Your task to perform on an android device: open a bookmark in the chrome app Image 0: 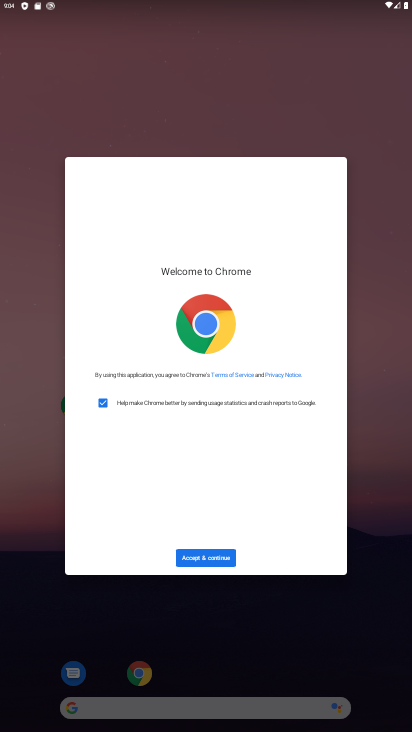
Step 0: press home button
Your task to perform on an android device: open a bookmark in the chrome app Image 1: 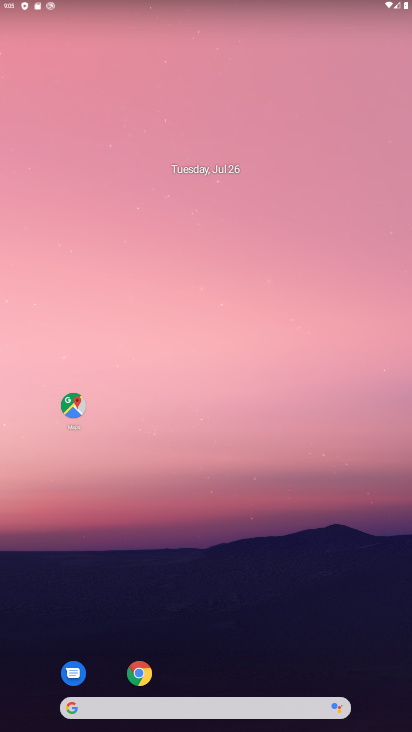
Step 1: click (140, 672)
Your task to perform on an android device: open a bookmark in the chrome app Image 2: 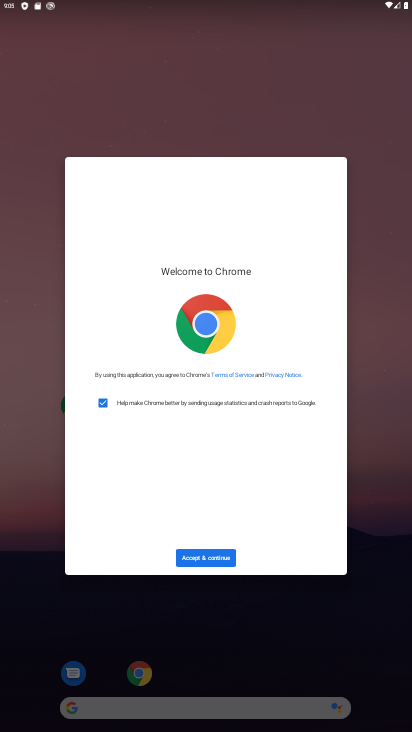
Step 2: click (212, 558)
Your task to perform on an android device: open a bookmark in the chrome app Image 3: 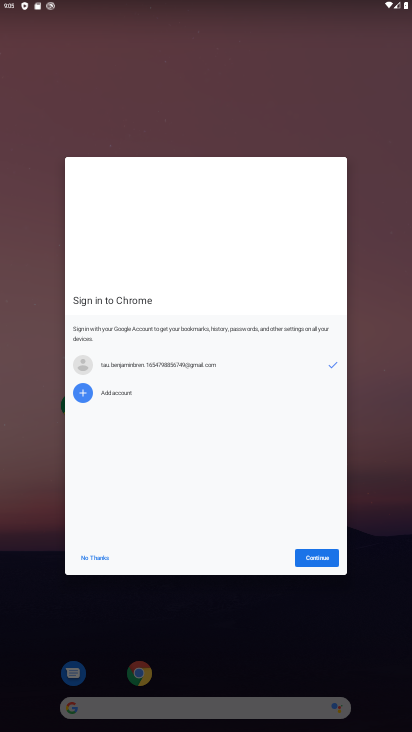
Step 3: click (318, 557)
Your task to perform on an android device: open a bookmark in the chrome app Image 4: 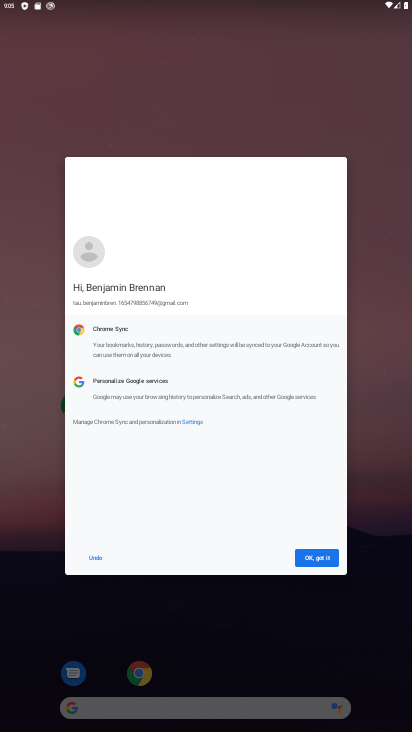
Step 4: click (318, 557)
Your task to perform on an android device: open a bookmark in the chrome app Image 5: 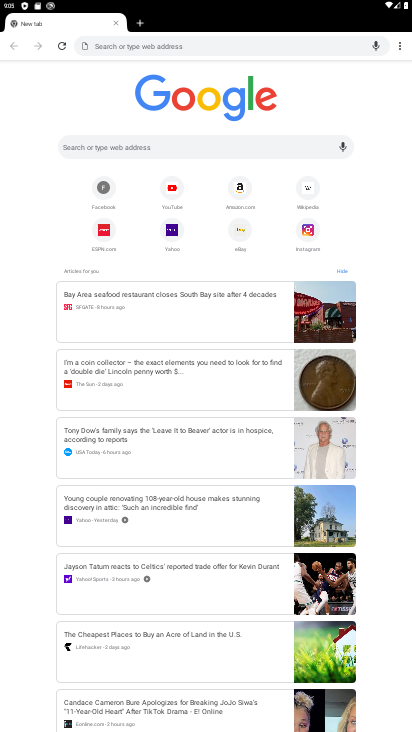
Step 5: click (400, 43)
Your task to perform on an android device: open a bookmark in the chrome app Image 6: 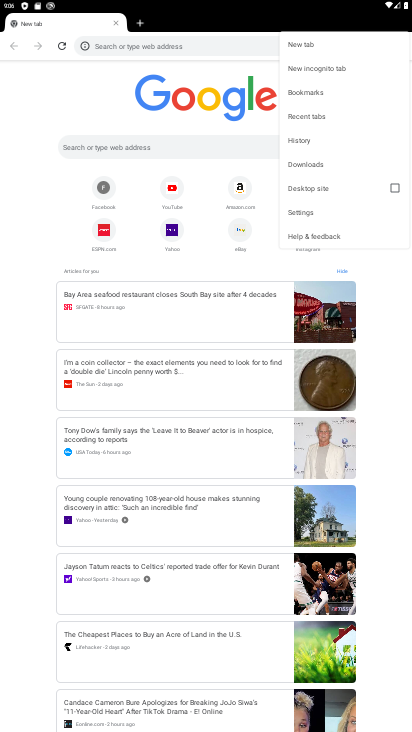
Step 6: click (318, 92)
Your task to perform on an android device: open a bookmark in the chrome app Image 7: 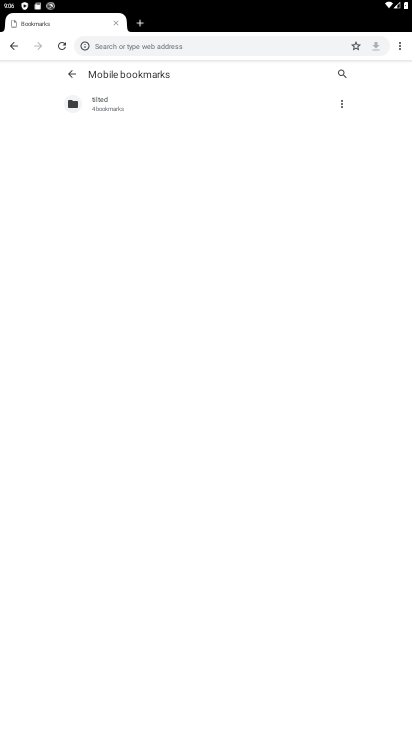
Step 7: task complete